Your task to perform on an android device: Search for Italian restaurants on Maps Image 0: 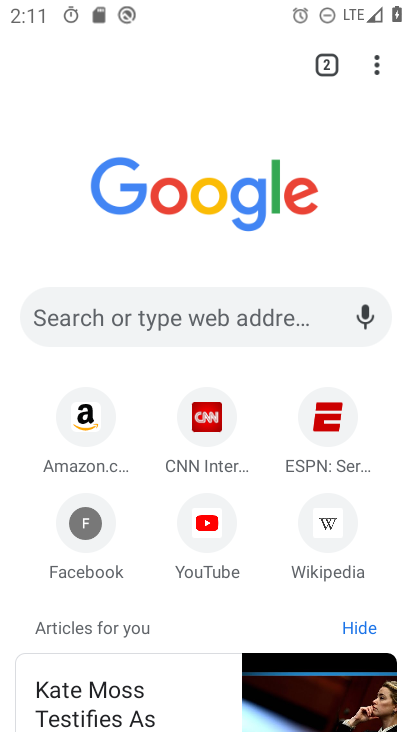
Step 0: press home button
Your task to perform on an android device: Search for Italian restaurants on Maps Image 1: 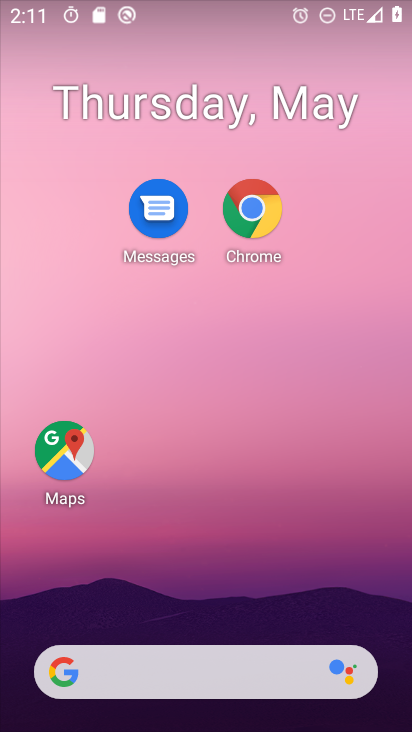
Step 1: click (54, 459)
Your task to perform on an android device: Search for Italian restaurants on Maps Image 2: 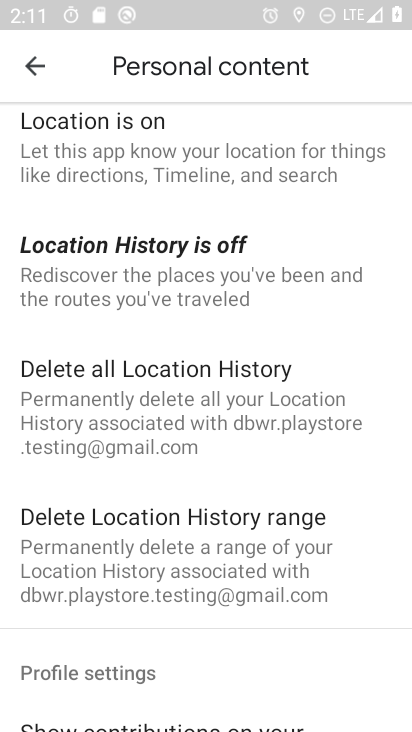
Step 2: click (31, 70)
Your task to perform on an android device: Search for Italian restaurants on Maps Image 3: 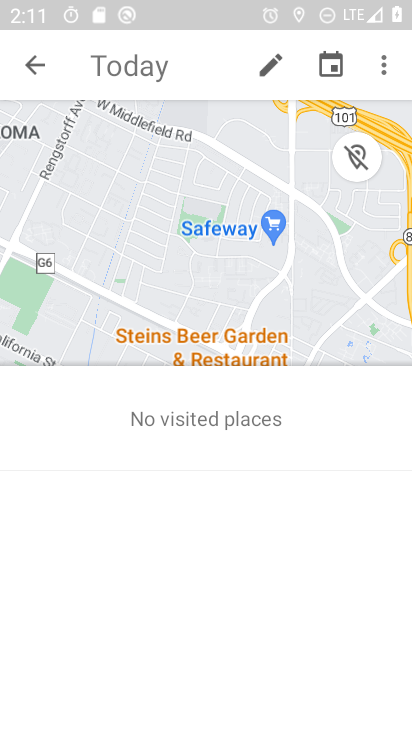
Step 3: click (35, 67)
Your task to perform on an android device: Search for Italian restaurants on Maps Image 4: 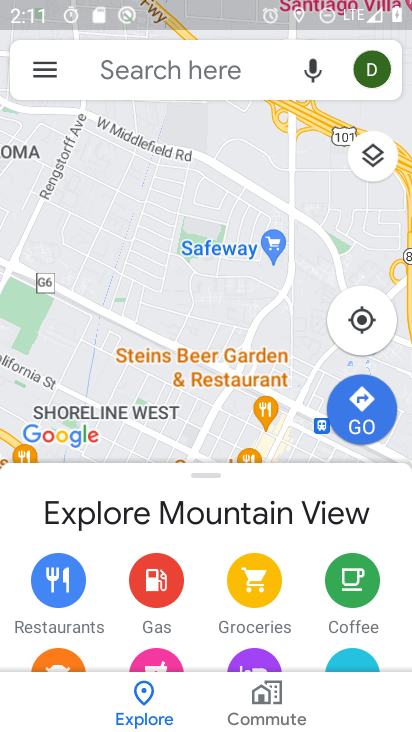
Step 4: click (186, 78)
Your task to perform on an android device: Search for Italian restaurants on Maps Image 5: 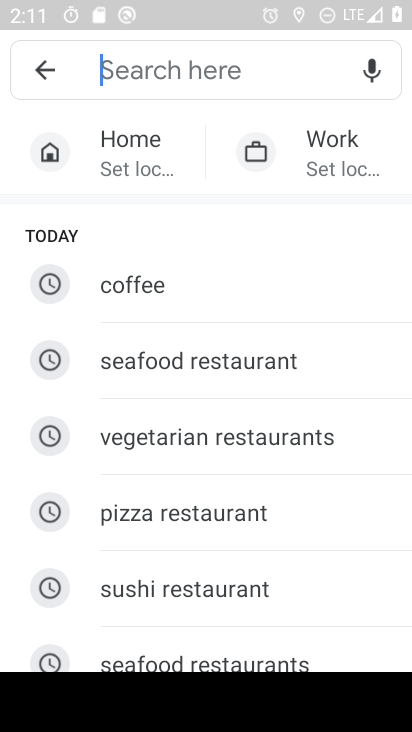
Step 5: drag from (194, 614) to (171, 327)
Your task to perform on an android device: Search for Italian restaurants on Maps Image 6: 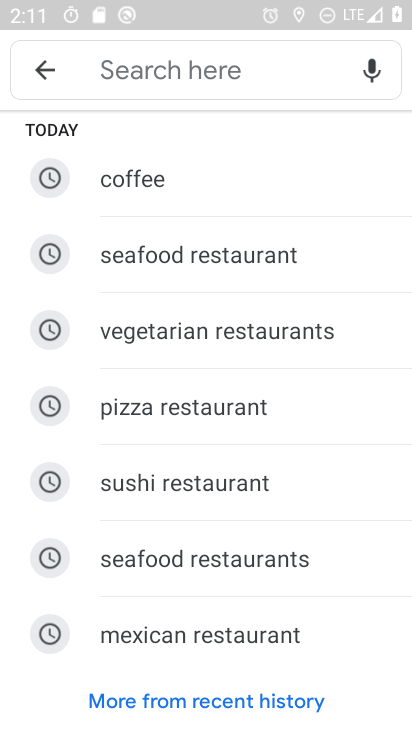
Step 6: click (159, 79)
Your task to perform on an android device: Search for Italian restaurants on Maps Image 7: 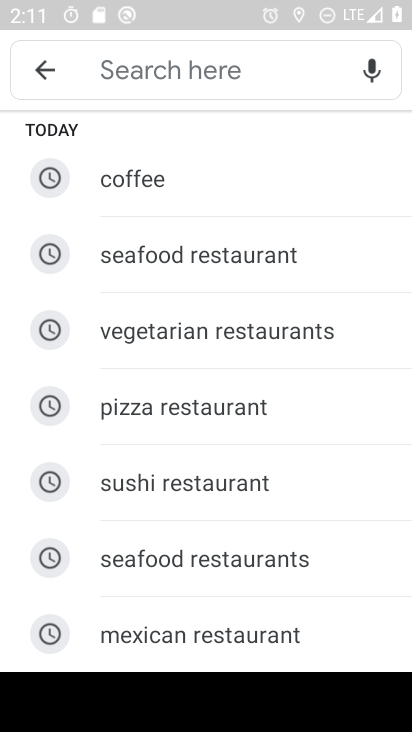
Step 7: type "italian restaurants"
Your task to perform on an android device: Search for Italian restaurants on Maps Image 8: 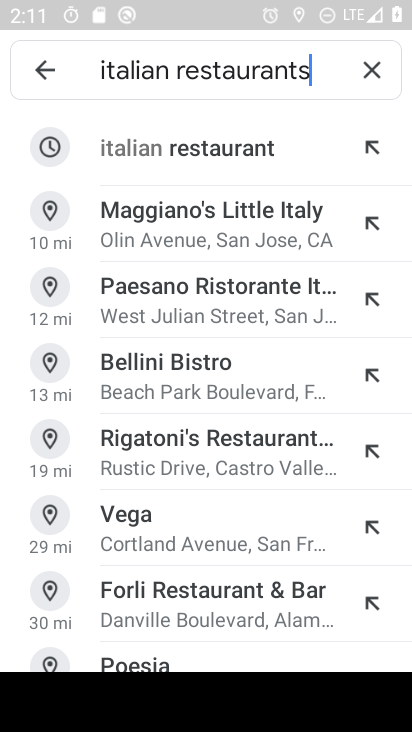
Step 8: click (168, 144)
Your task to perform on an android device: Search for Italian restaurants on Maps Image 9: 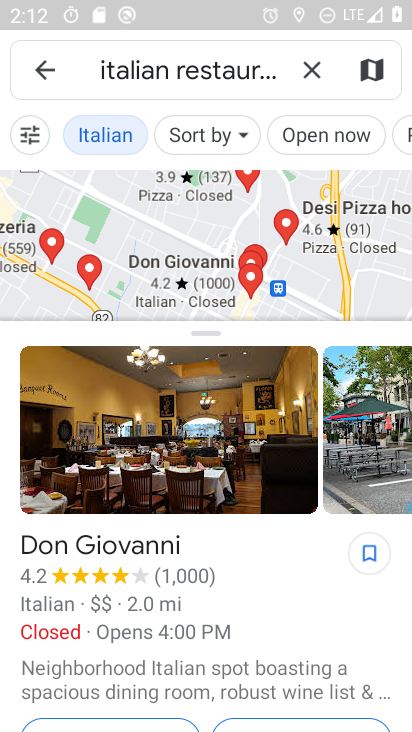
Step 9: task complete